Your task to perform on an android device: turn on the 24-hour format for clock Image 0: 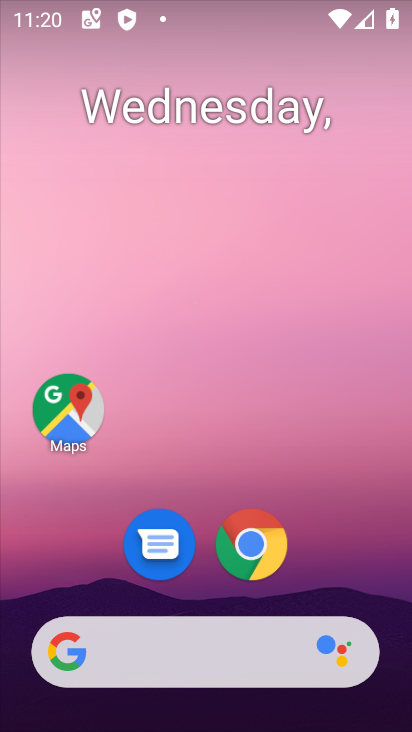
Step 0: drag from (352, 486) to (280, 46)
Your task to perform on an android device: turn on the 24-hour format for clock Image 1: 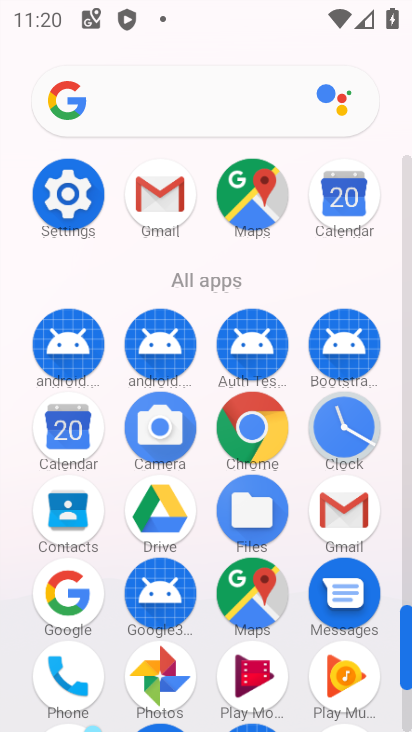
Step 1: click (333, 421)
Your task to perform on an android device: turn on the 24-hour format for clock Image 2: 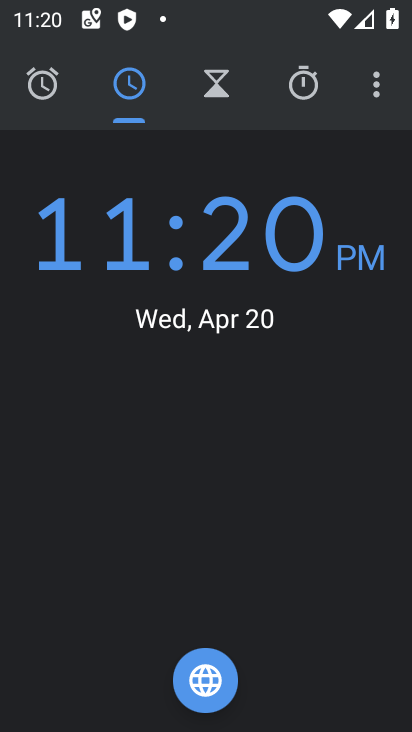
Step 2: click (371, 88)
Your task to perform on an android device: turn on the 24-hour format for clock Image 3: 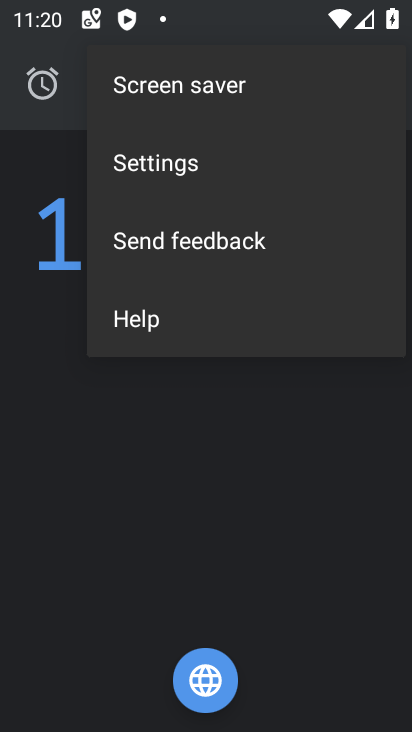
Step 3: click (167, 181)
Your task to perform on an android device: turn on the 24-hour format for clock Image 4: 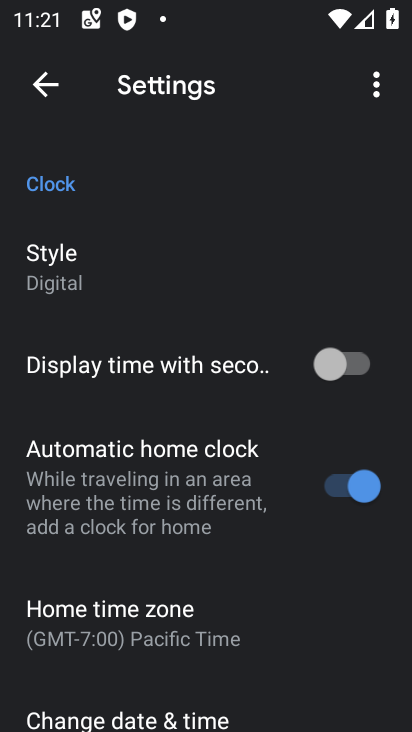
Step 4: click (188, 722)
Your task to perform on an android device: turn on the 24-hour format for clock Image 5: 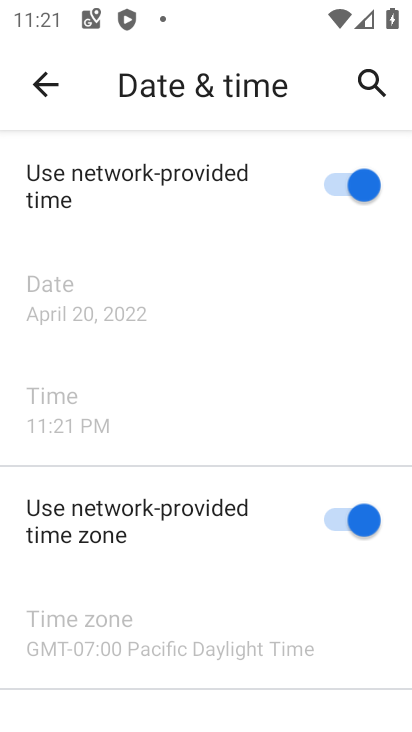
Step 5: drag from (299, 653) to (174, 311)
Your task to perform on an android device: turn on the 24-hour format for clock Image 6: 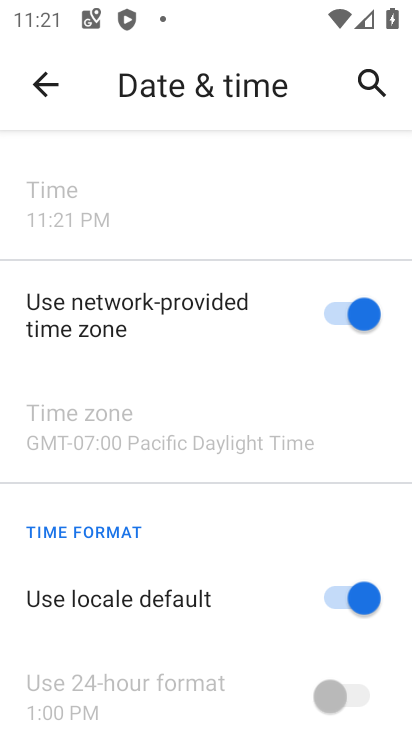
Step 6: click (273, 614)
Your task to perform on an android device: turn on the 24-hour format for clock Image 7: 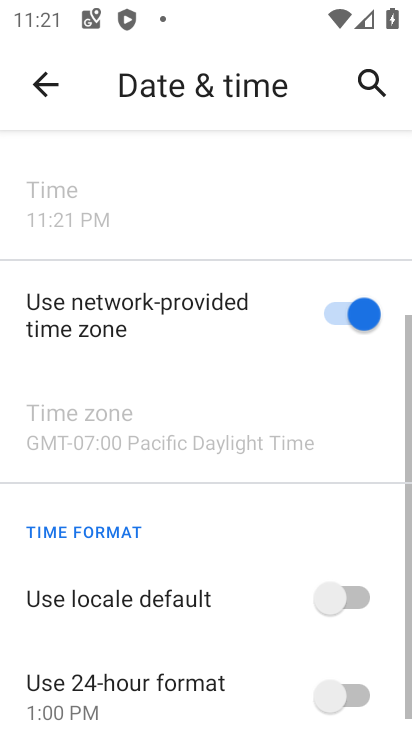
Step 7: click (350, 699)
Your task to perform on an android device: turn on the 24-hour format for clock Image 8: 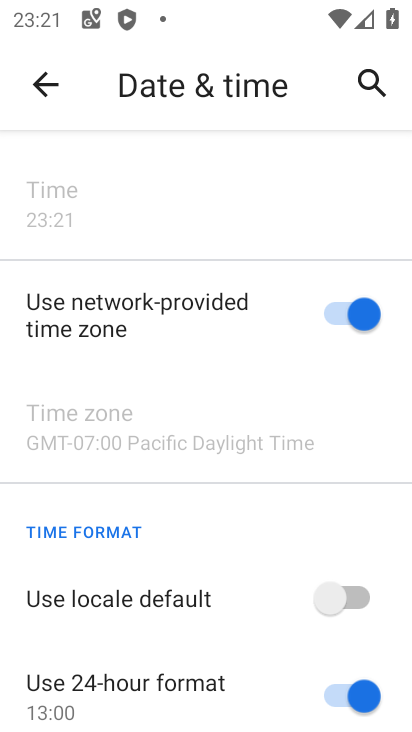
Step 8: task complete